Your task to perform on an android device: empty trash in google photos Image 0: 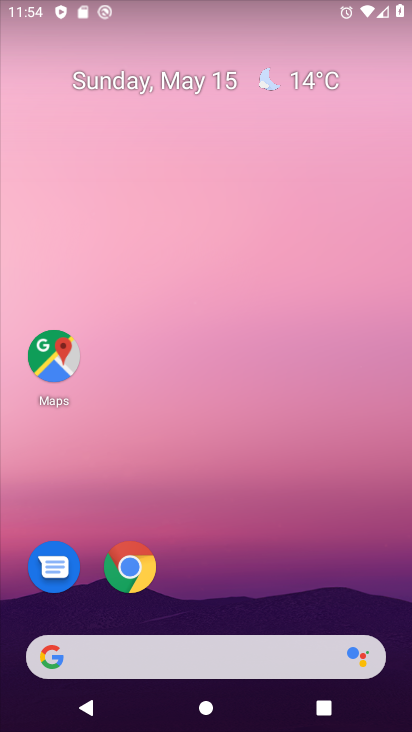
Step 0: drag from (224, 606) to (229, 28)
Your task to perform on an android device: empty trash in google photos Image 1: 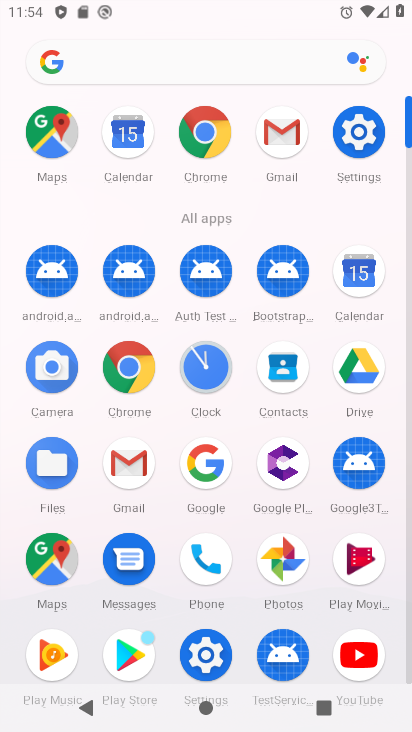
Step 1: click (284, 566)
Your task to perform on an android device: empty trash in google photos Image 2: 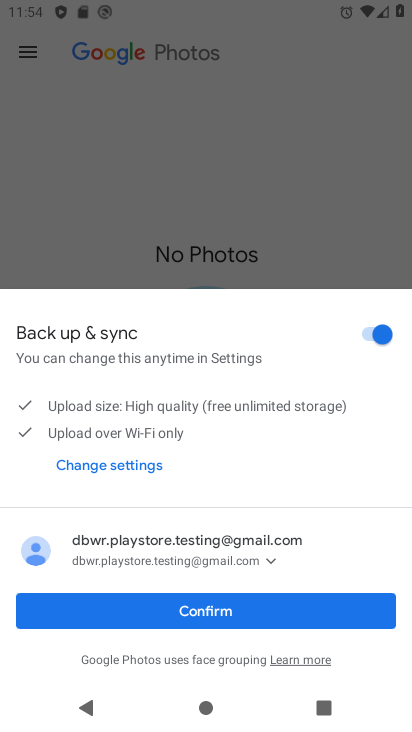
Step 2: click (144, 599)
Your task to perform on an android device: empty trash in google photos Image 3: 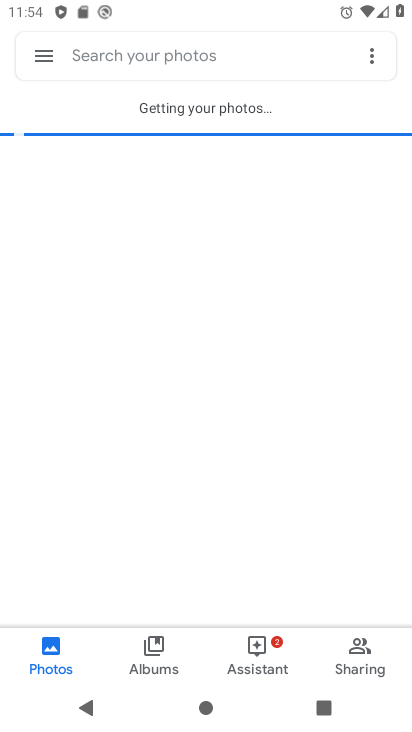
Step 3: click (38, 59)
Your task to perform on an android device: empty trash in google photos Image 4: 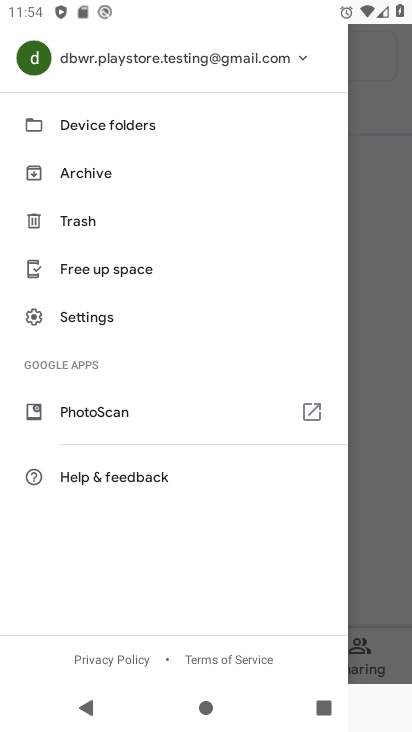
Step 4: click (65, 216)
Your task to perform on an android device: empty trash in google photos Image 5: 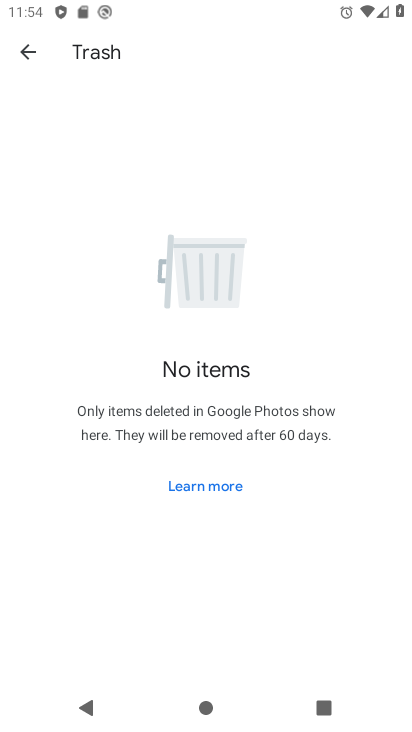
Step 5: task complete